Your task to perform on an android device: turn on priority inbox in the gmail app Image 0: 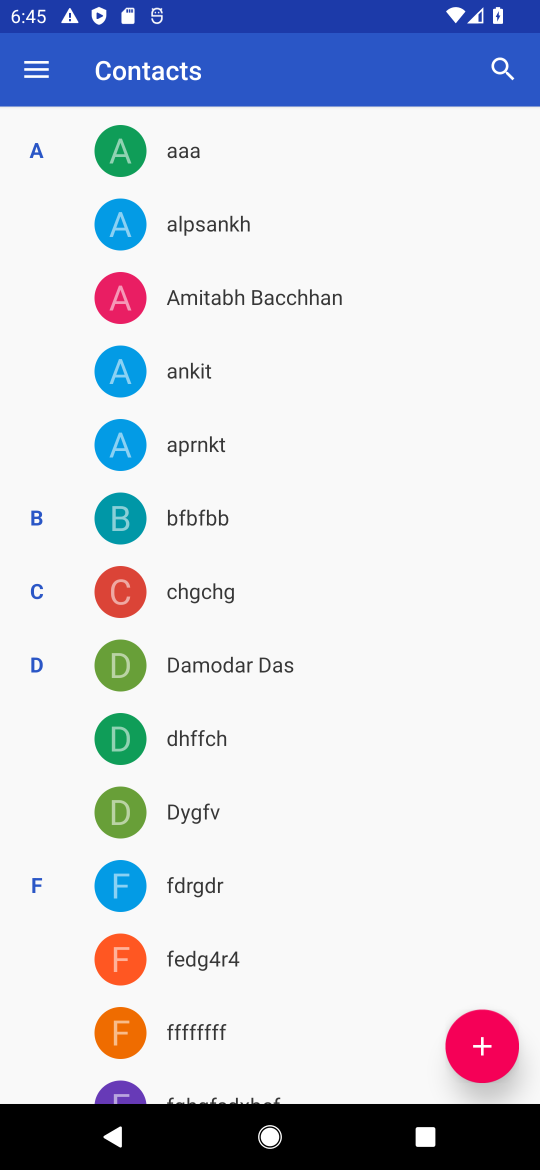
Step 0: press home button
Your task to perform on an android device: turn on priority inbox in the gmail app Image 1: 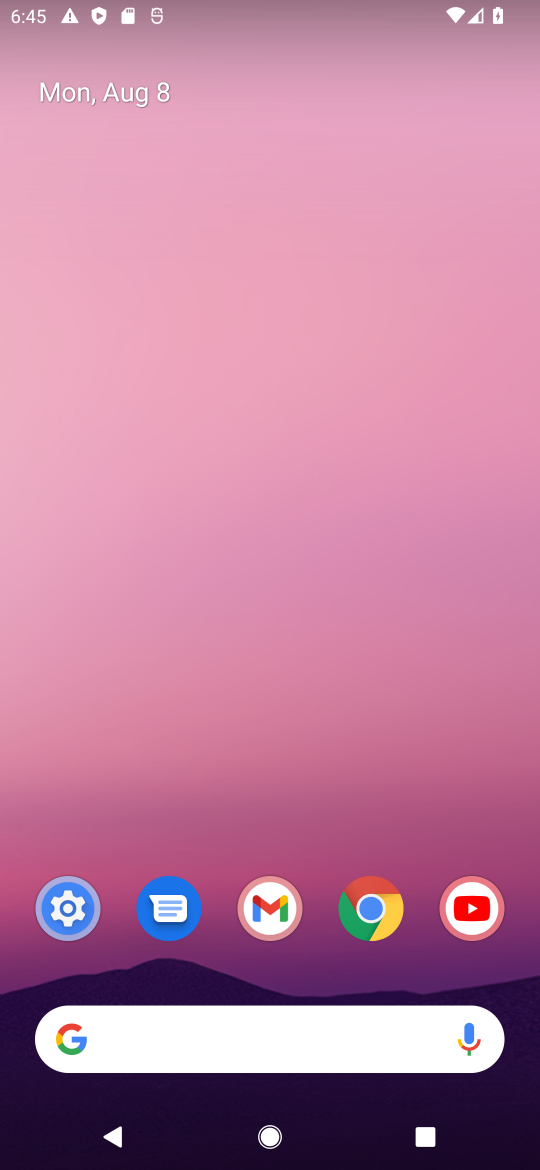
Step 1: click (280, 887)
Your task to perform on an android device: turn on priority inbox in the gmail app Image 2: 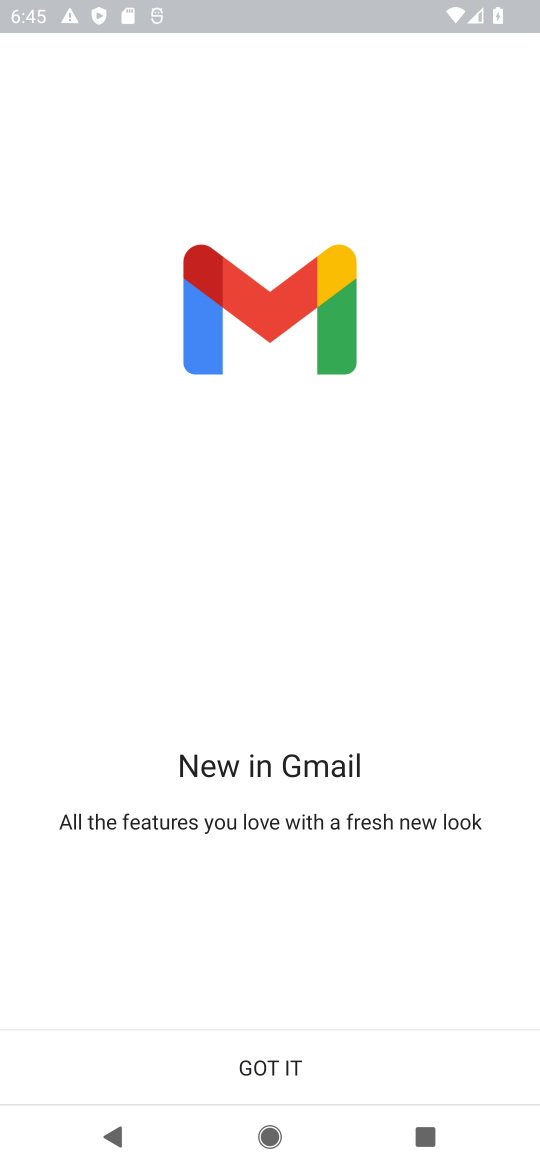
Step 2: click (253, 1086)
Your task to perform on an android device: turn on priority inbox in the gmail app Image 3: 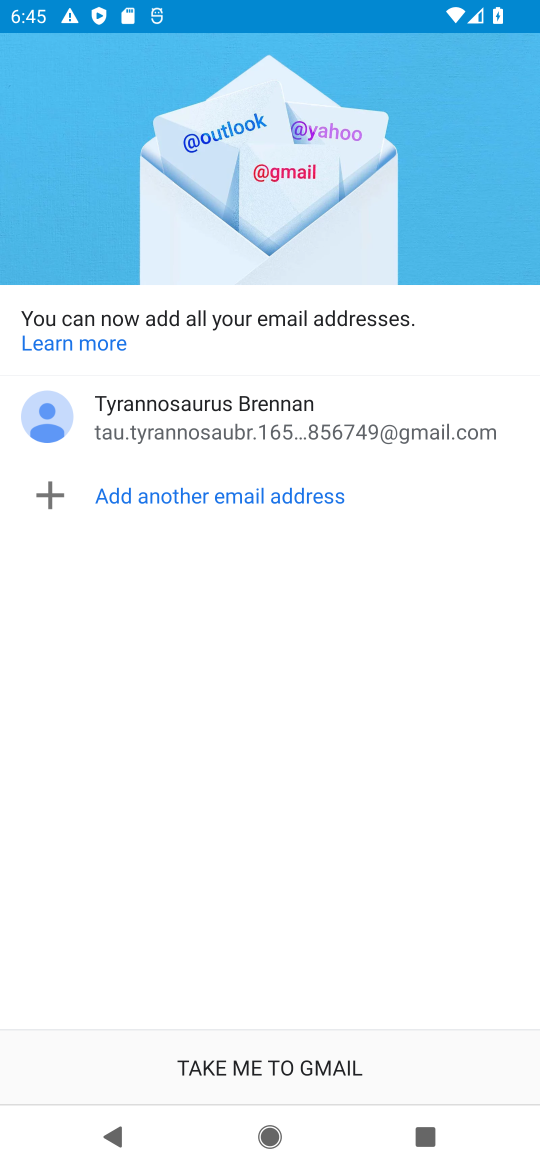
Step 3: click (253, 1086)
Your task to perform on an android device: turn on priority inbox in the gmail app Image 4: 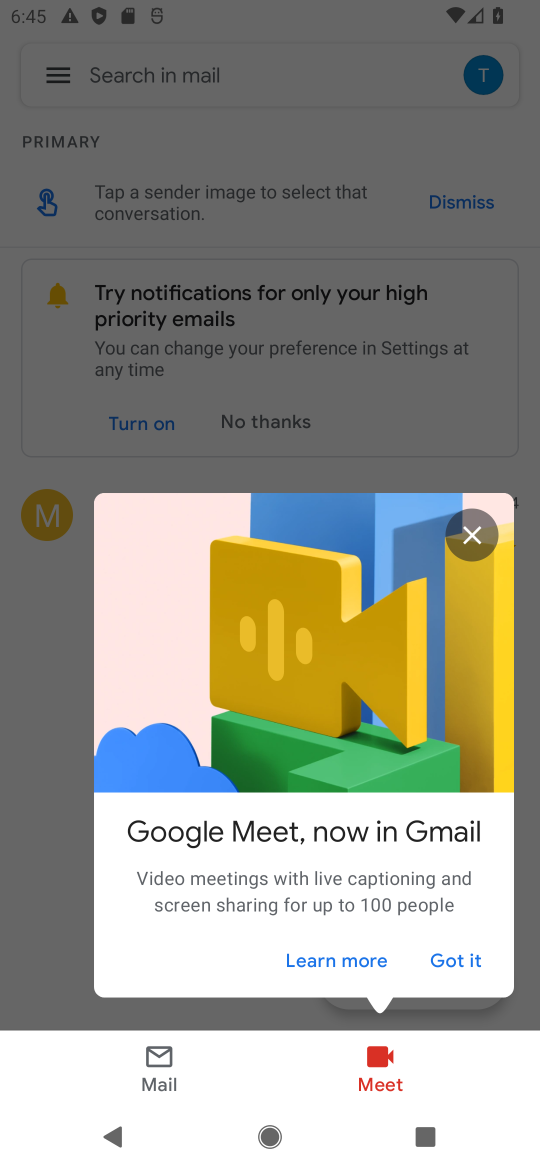
Step 4: click (450, 966)
Your task to perform on an android device: turn on priority inbox in the gmail app Image 5: 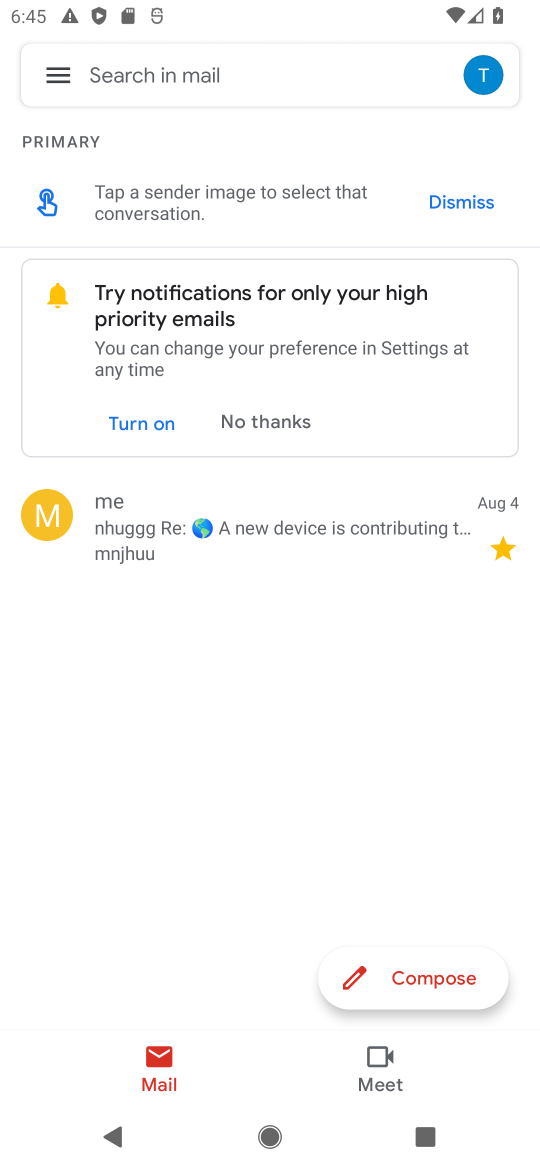
Step 5: click (63, 93)
Your task to perform on an android device: turn on priority inbox in the gmail app Image 6: 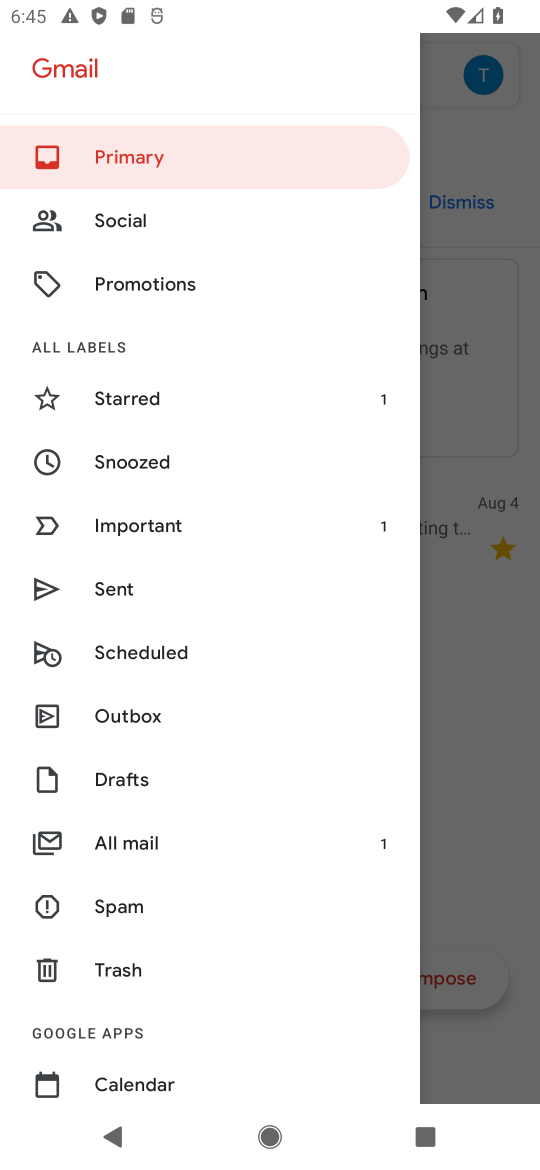
Step 6: drag from (116, 1069) to (284, 381)
Your task to perform on an android device: turn on priority inbox in the gmail app Image 7: 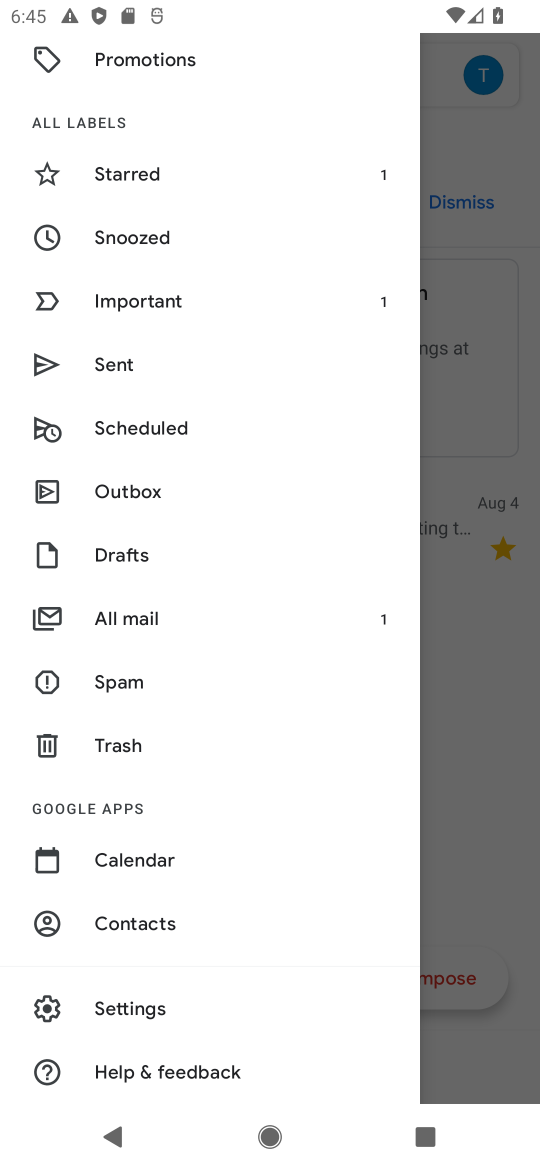
Step 7: click (132, 1010)
Your task to perform on an android device: turn on priority inbox in the gmail app Image 8: 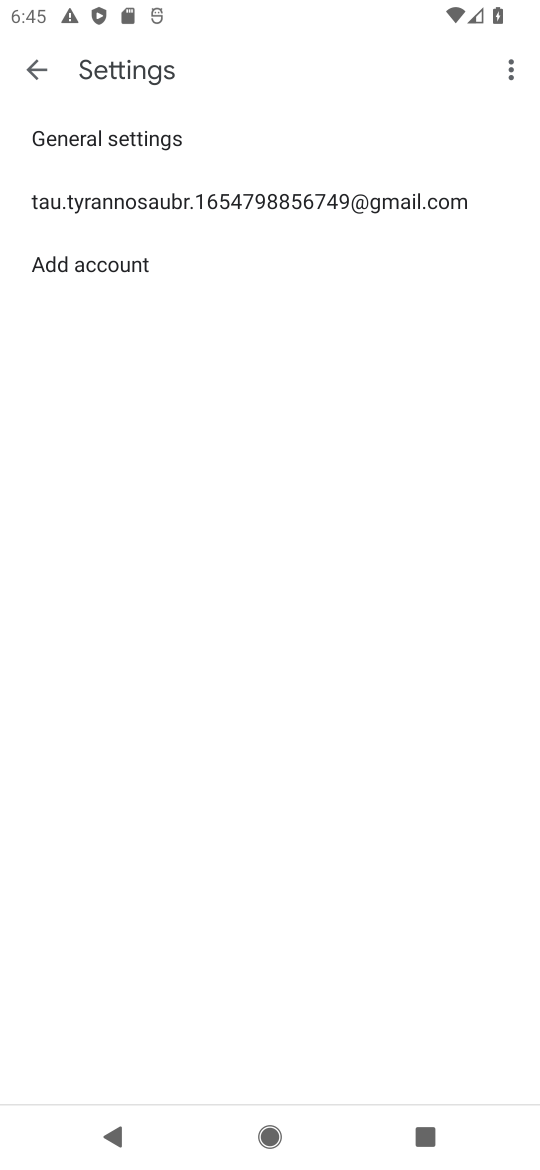
Step 8: click (424, 231)
Your task to perform on an android device: turn on priority inbox in the gmail app Image 9: 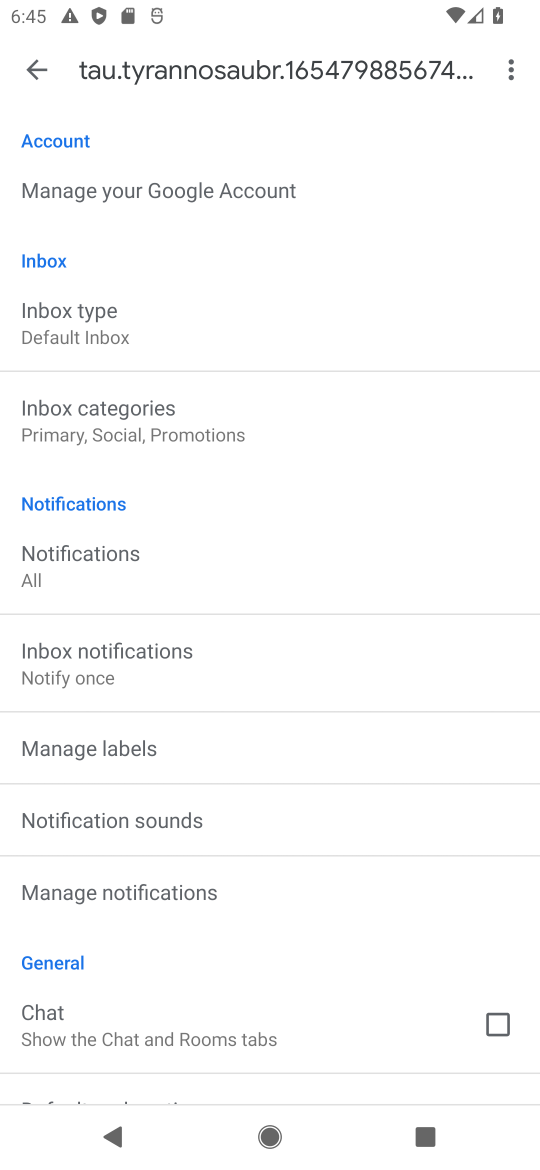
Step 9: click (153, 337)
Your task to perform on an android device: turn on priority inbox in the gmail app Image 10: 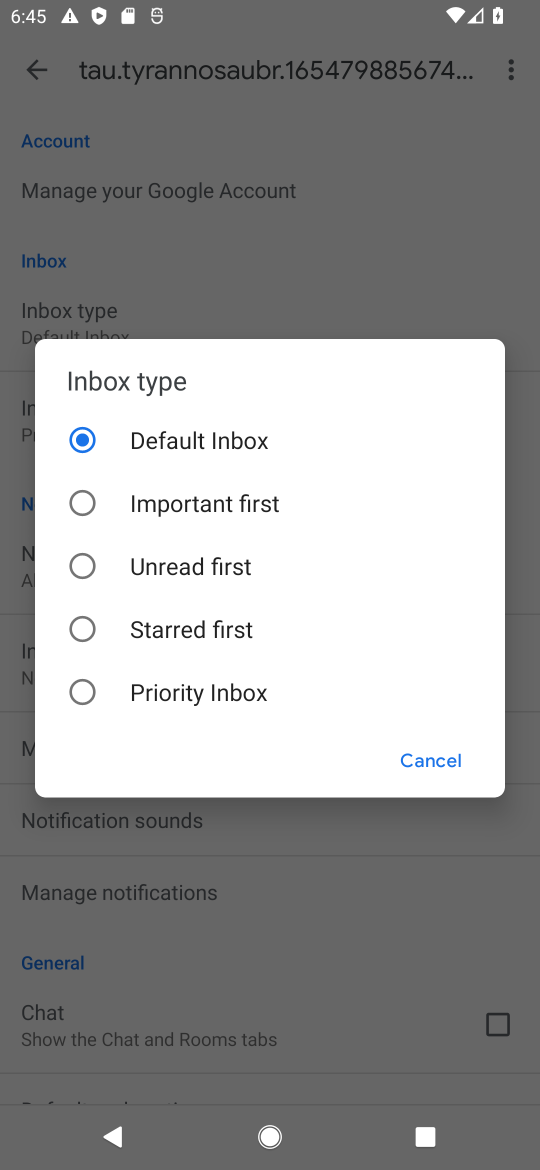
Step 10: click (159, 708)
Your task to perform on an android device: turn on priority inbox in the gmail app Image 11: 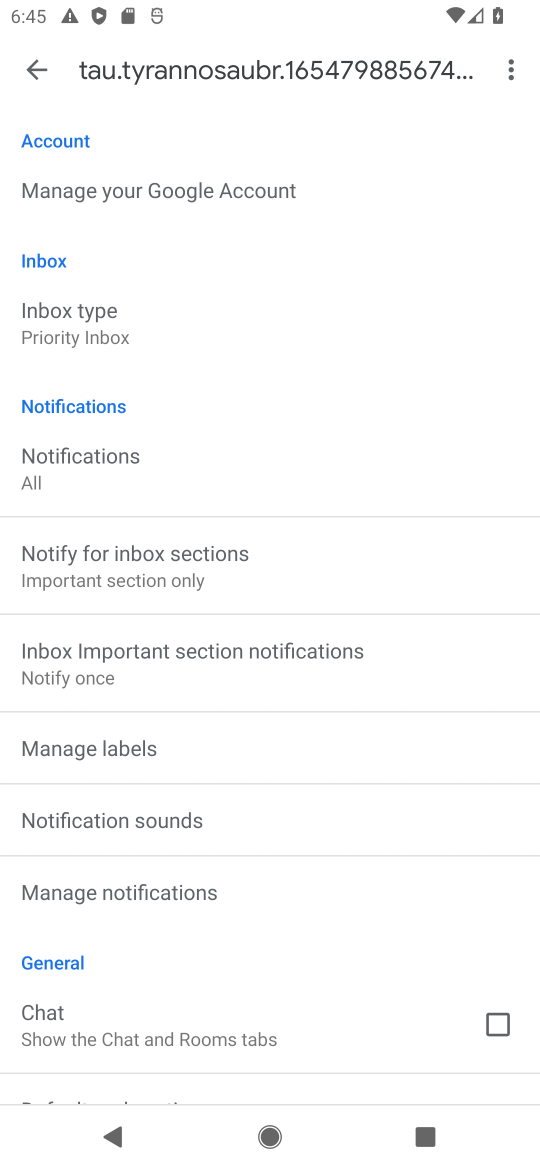
Step 11: task complete